Your task to perform on an android device: turn off improve location accuracy Image 0: 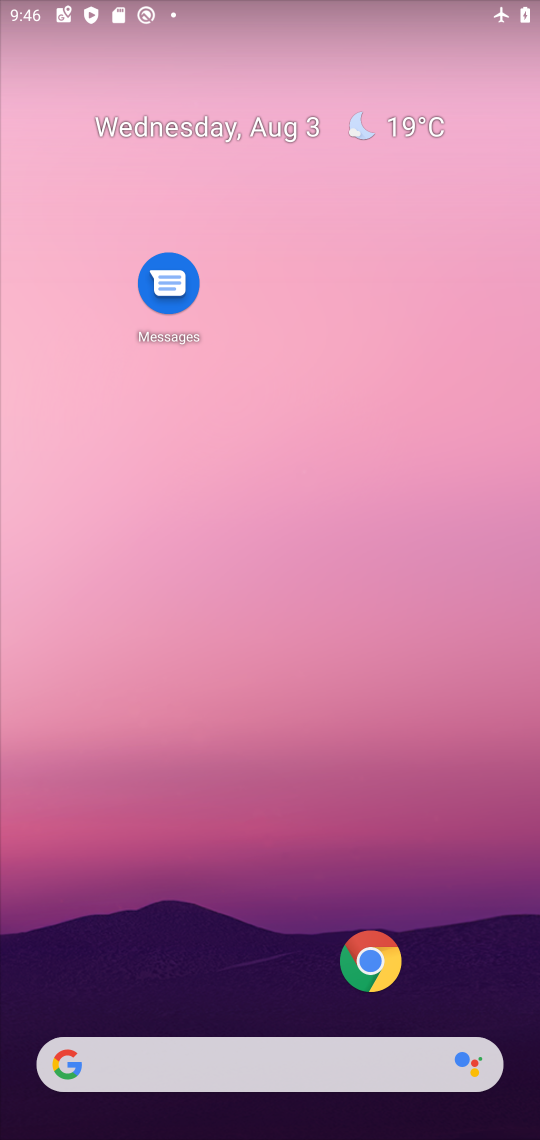
Step 0: drag from (275, 1025) to (133, 88)
Your task to perform on an android device: turn off improve location accuracy Image 1: 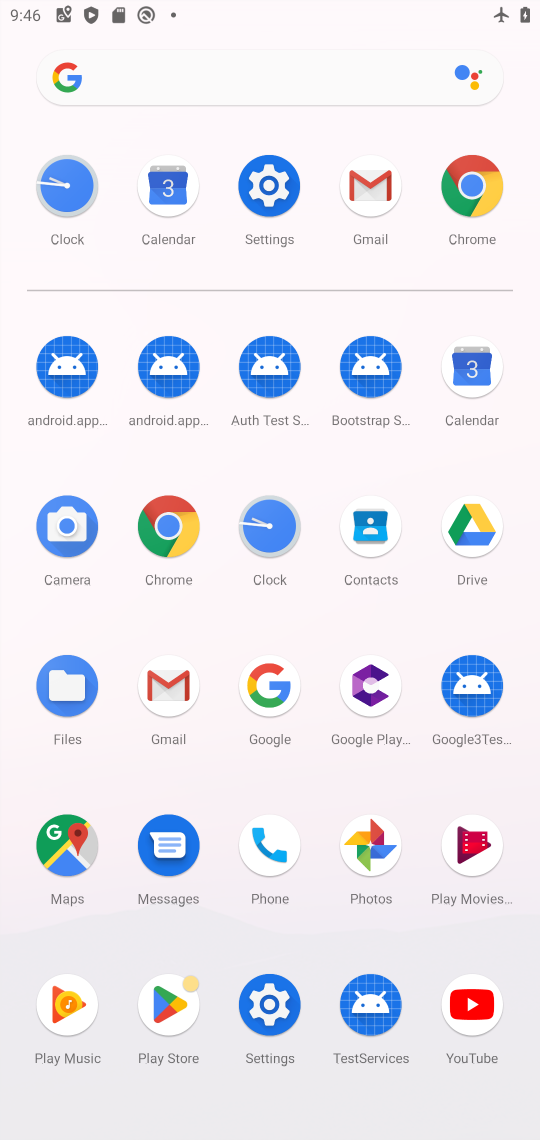
Step 1: click (258, 1021)
Your task to perform on an android device: turn off improve location accuracy Image 2: 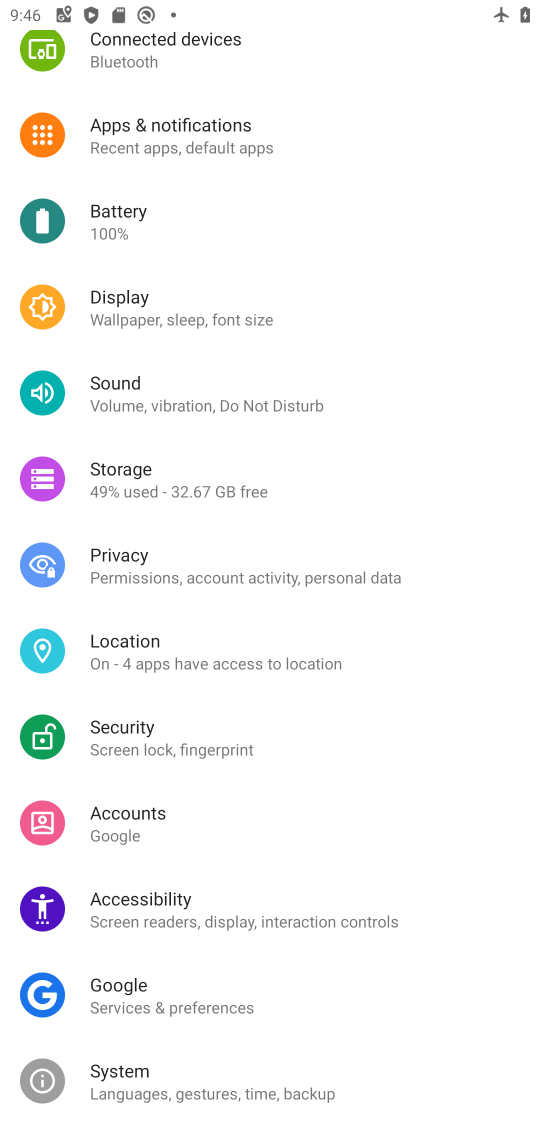
Step 2: click (134, 640)
Your task to perform on an android device: turn off improve location accuracy Image 3: 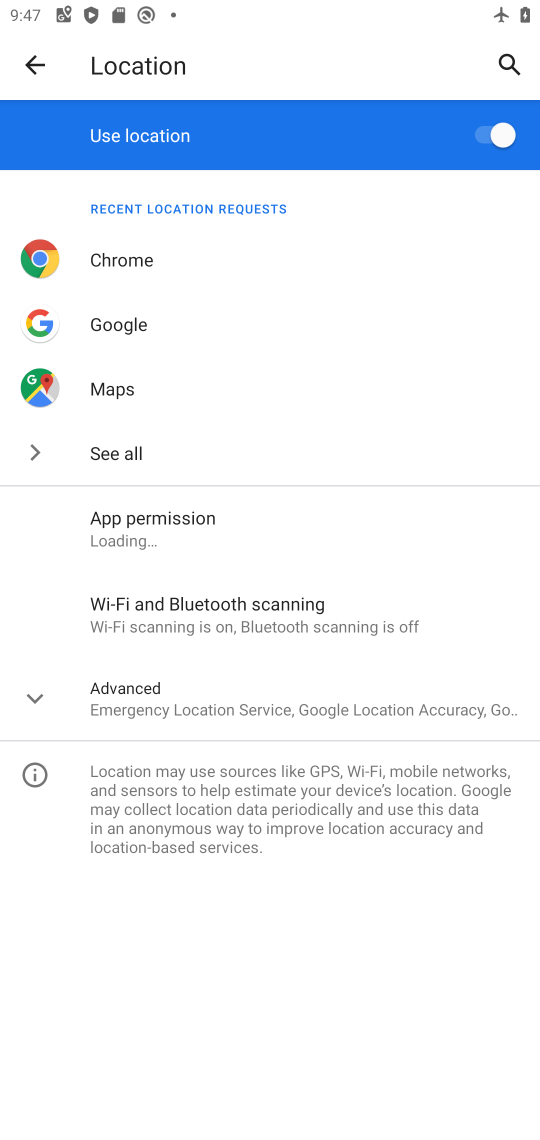
Step 3: click (72, 691)
Your task to perform on an android device: turn off improve location accuracy Image 4: 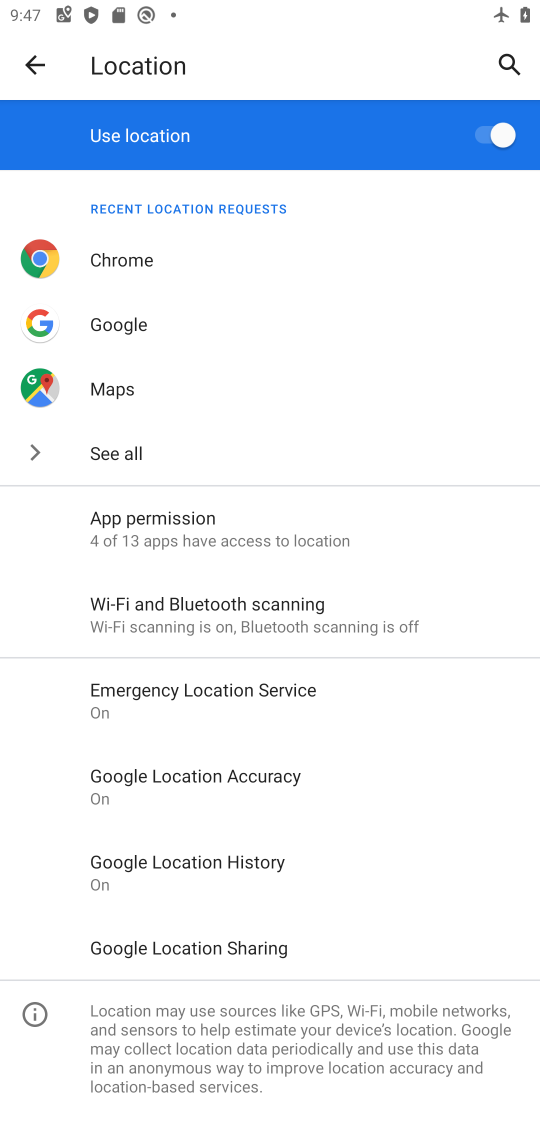
Step 4: click (224, 786)
Your task to perform on an android device: turn off improve location accuracy Image 5: 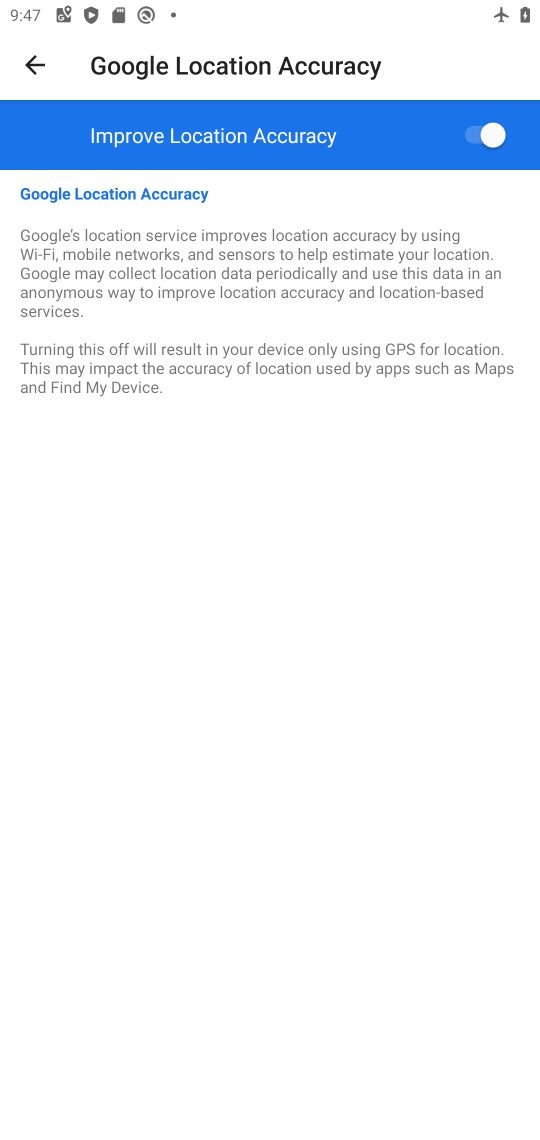
Step 5: click (489, 131)
Your task to perform on an android device: turn off improve location accuracy Image 6: 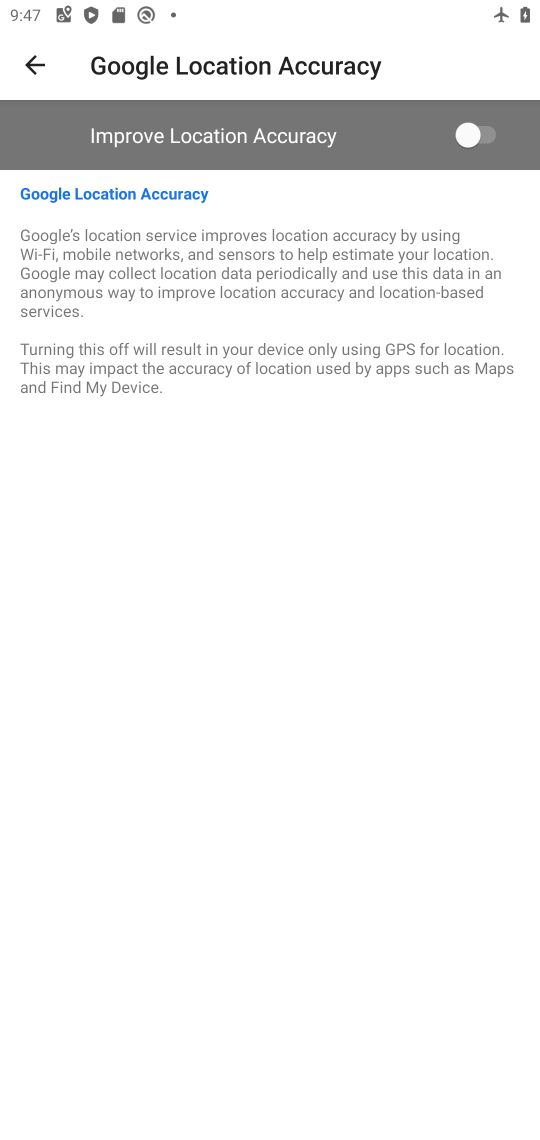
Step 6: task complete